Your task to perform on an android device: Do I have any events this weekend? Image 0: 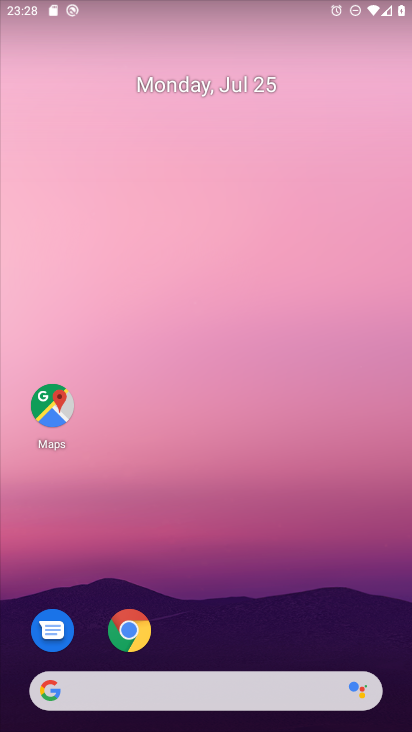
Step 0: drag from (244, 552) to (252, 48)
Your task to perform on an android device: Do I have any events this weekend? Image 1: 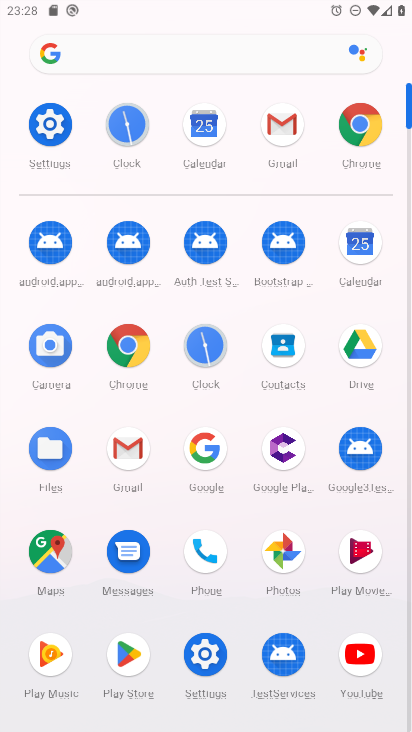
Step 1: click (361, 238)
Your task to perform on an android device: Do I have any events this weekend? Image 2: 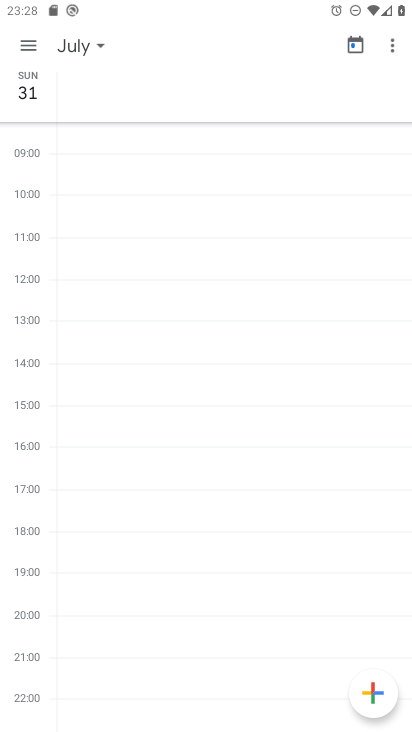
Step 2: click (89, 47)
Your task to perform on an android device: Do I have any events this weekend? Image 3: 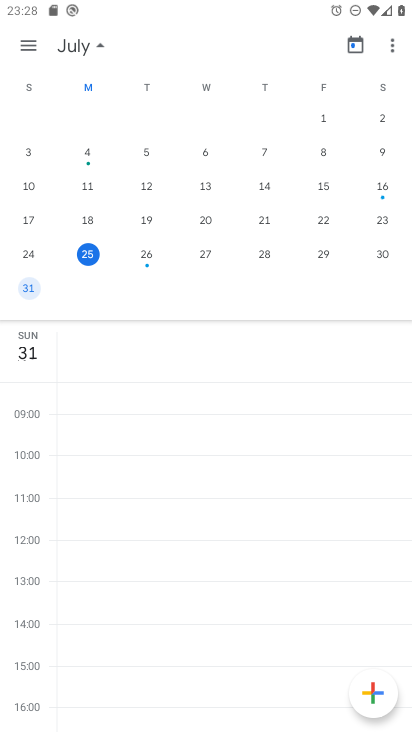
Step 3: click (379, 197)
Your task to perform on an android device: Do I have any events this weekend? Image 4: 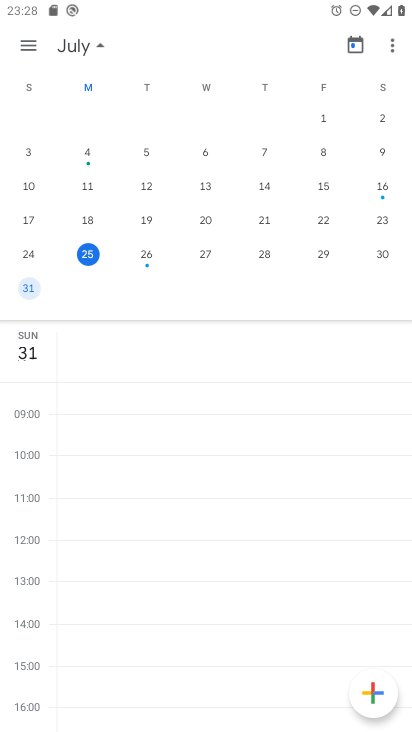
Step 4: click (390, 253)
Your task to perform on an android device: Do I have any events this weekend? Image 5: 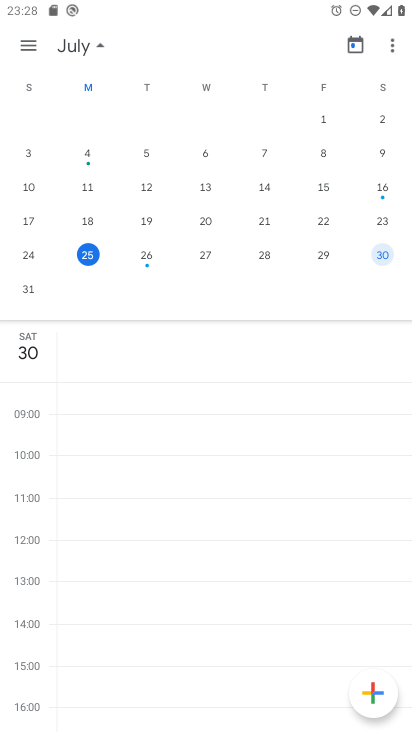
Step 5: click (12, 51)
Your task to perform on an android device: Do I have any events this weekend? Image 6: 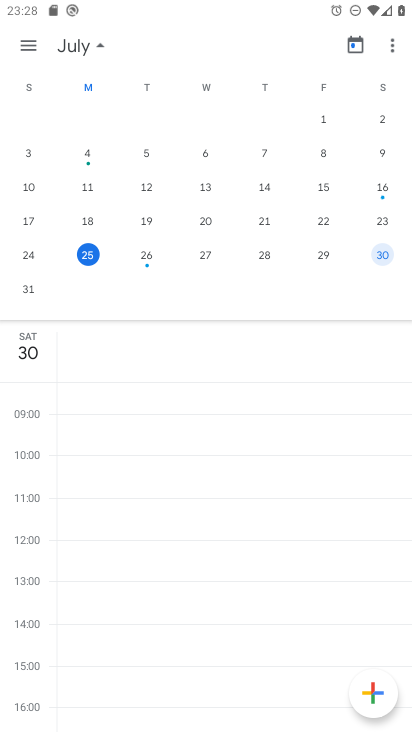
Step 6: click (36, 42)
Your task to perform on an android device: Do I have any events this weekend? Image 7: 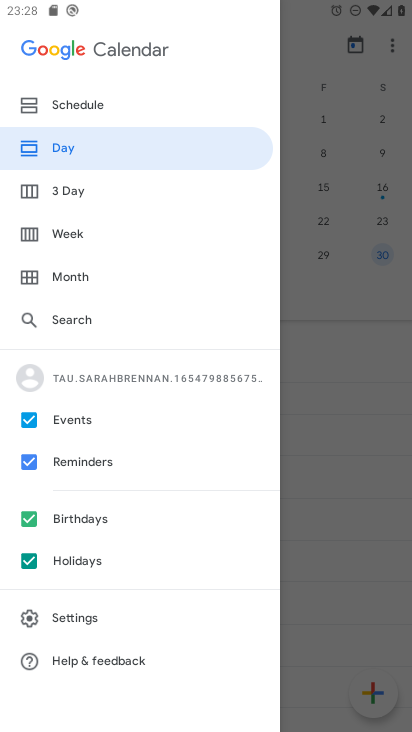
Step 7: click (84, 194)
Your task to perform on an android device: Do I have any events this weekend? Image 8: 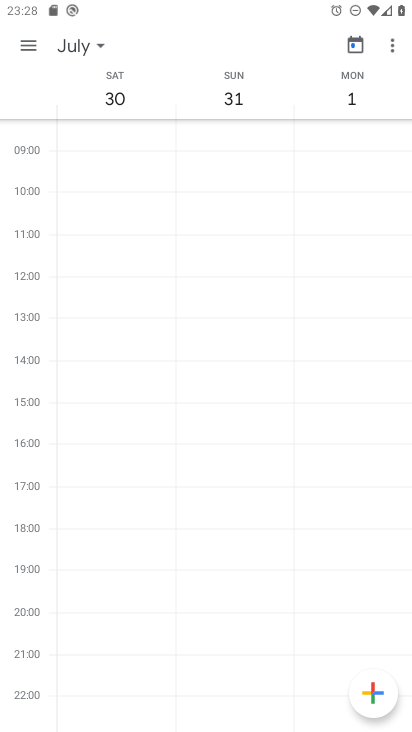
Step 8: task complete